Your task to perform on an android device: Open Google Chrome and open the bookmarks view Image 0: 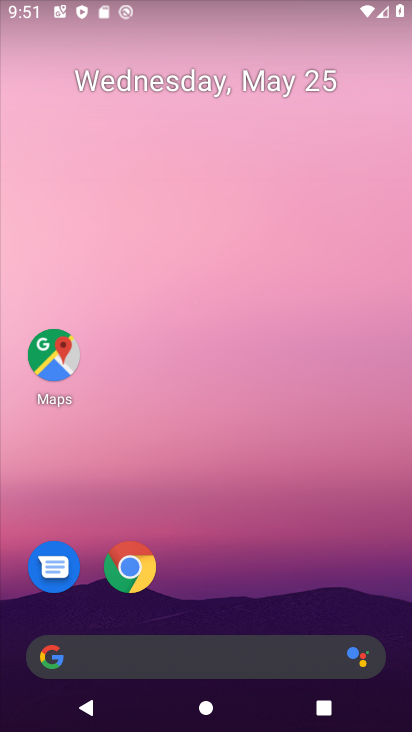
Step 0: drag from (295, 591) to (303, 29)
Your task to perform on an android device: Open Google Chrome and open the bookmarks view Image 1: 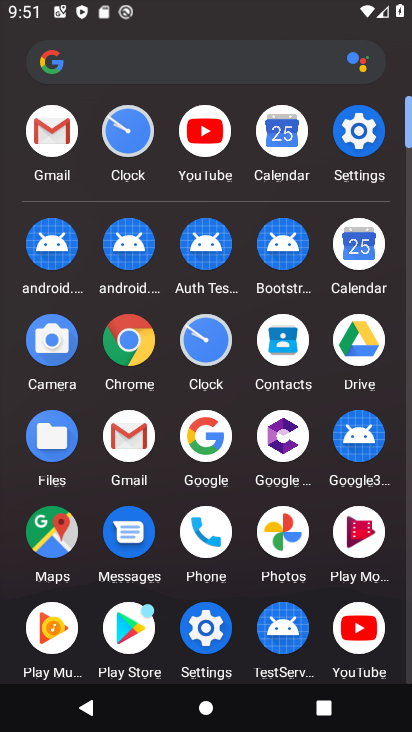
Step 1: click (117, 362)
Your task to perform on an android device: Open Google Chrome and open the bookmarks view Image 2: 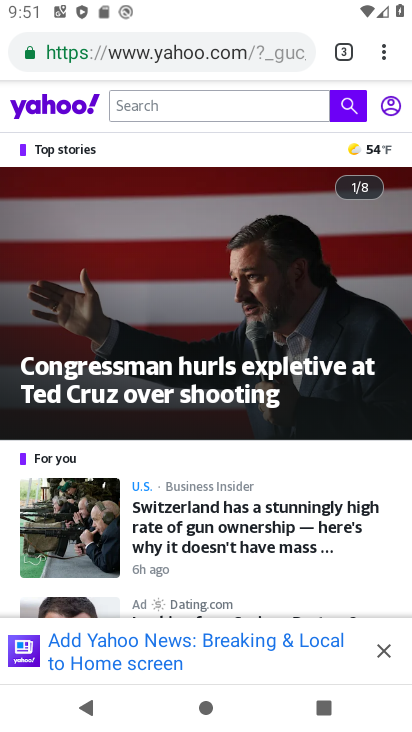
Step 2: click (374, 64)
Your task to perform on an android device: Open Google Chrome and open the bookmarks view Image 3: 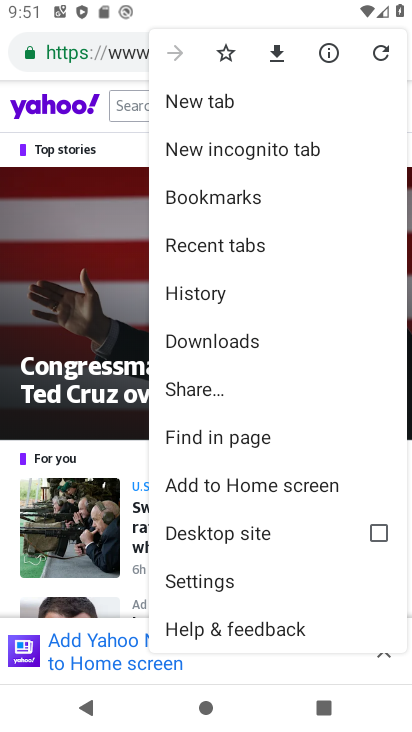
Step 3: click (269, 197)
Your task to perform on an android device: Open Google Chrome and open the bookmarks view Image 4: 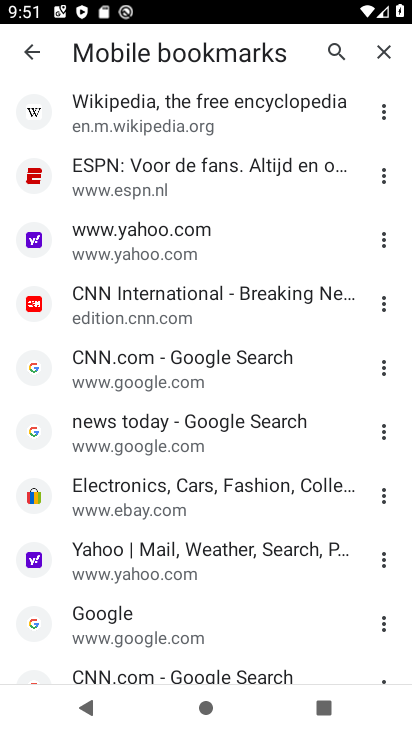
Step 4: click (269, 197)
Your task to perform on an android device: Open Google Chrome and open the bookmarks view Image 5: 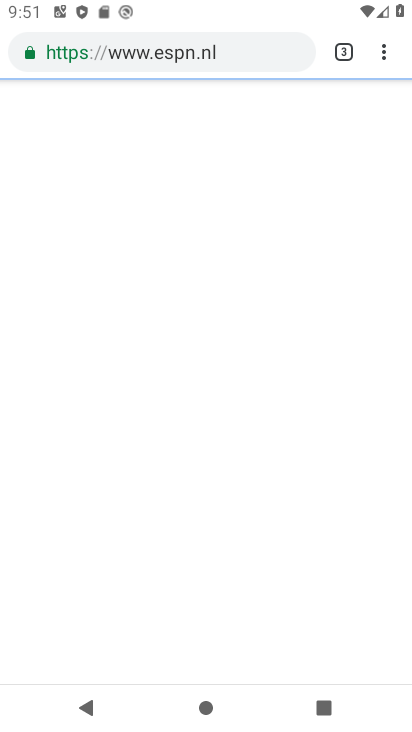
Step 5: task complete